Your task to perform on an android device: Go to internet settings Image 0: 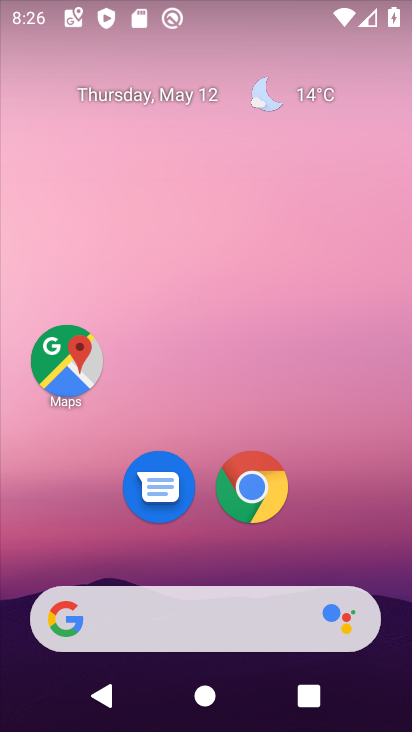
Step 0: drag from (328, 570) to (312, 2)
Your task to perform on an android device: Go to internet settings Image 1: 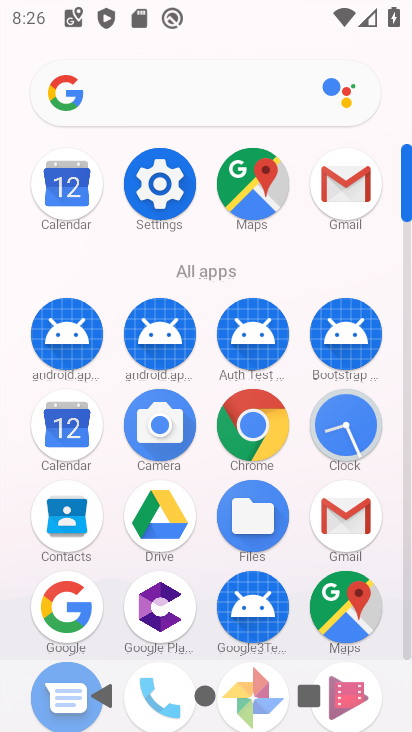
Step 1: click (163, 185)
Your task to perform on an android device: Go to internet settings Image 2: 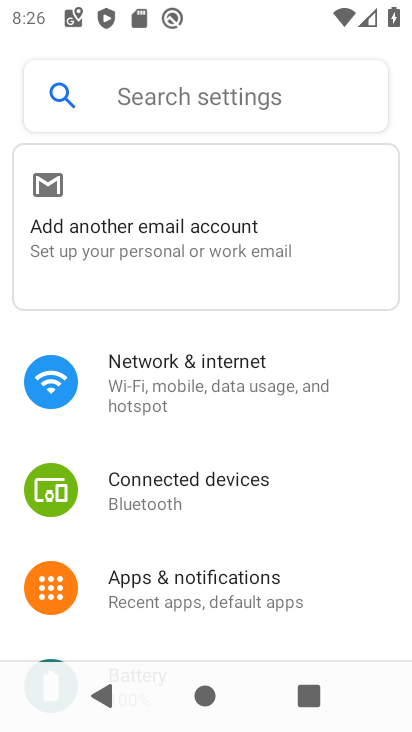
Step 2: click (161, 365)
Your task to perform on an android device: Go to internet settings Image 3: 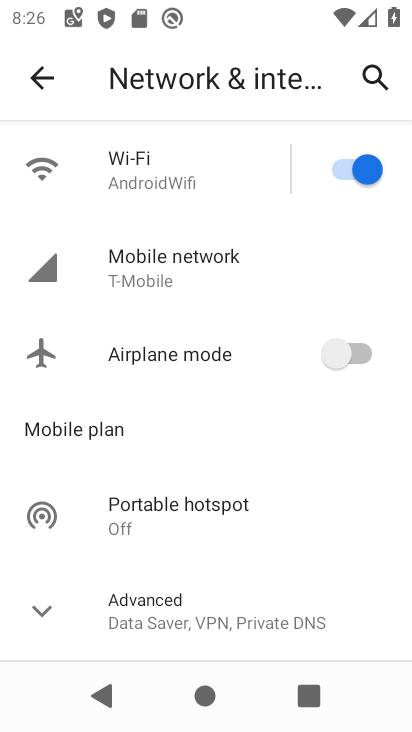
Step 3: drag from (206, 454) to (179, 47)
Your task to perform on an android device: Go to internet settings Image 4: 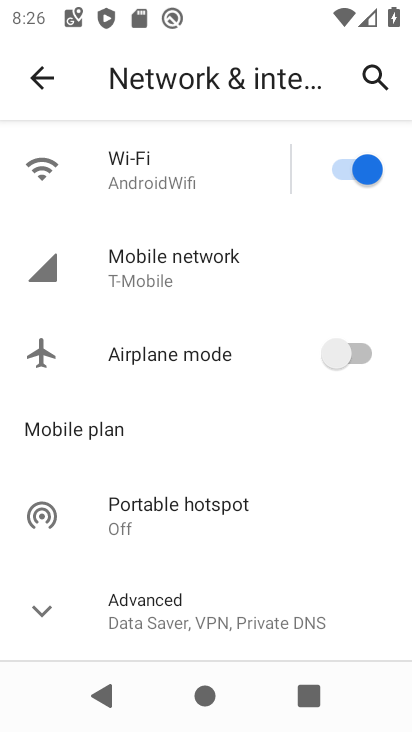
Step 4: click (44, 625)
Your task to perform on an android device: Go to internet settings Image 5: 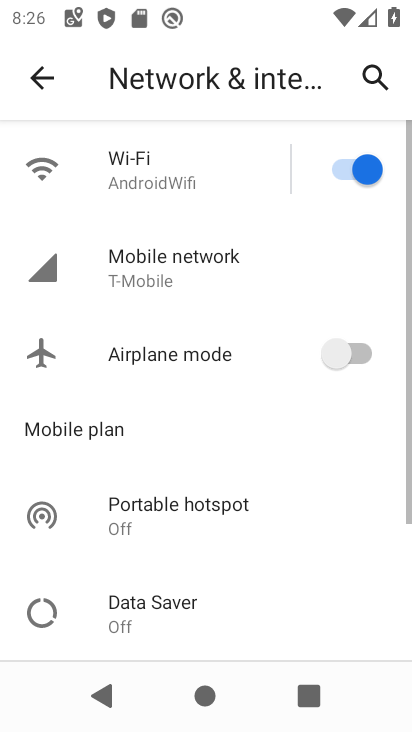
Step 5: task complete